Your task to perform on an android device: turn on airplane mode Image 0: 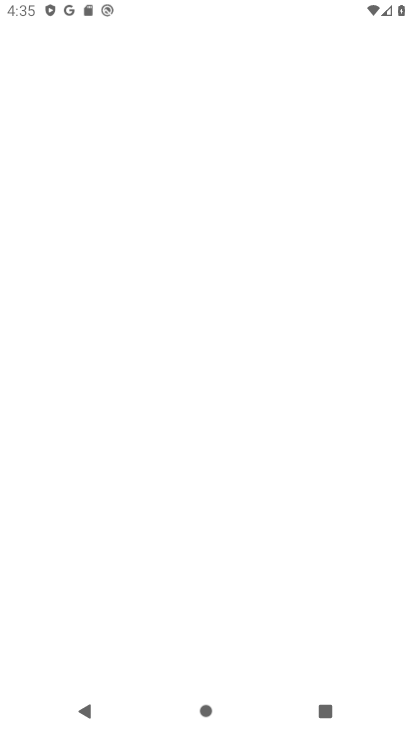
Step 0: press home button
Your task to perform on an android device: turn on airplane mode Image 1: 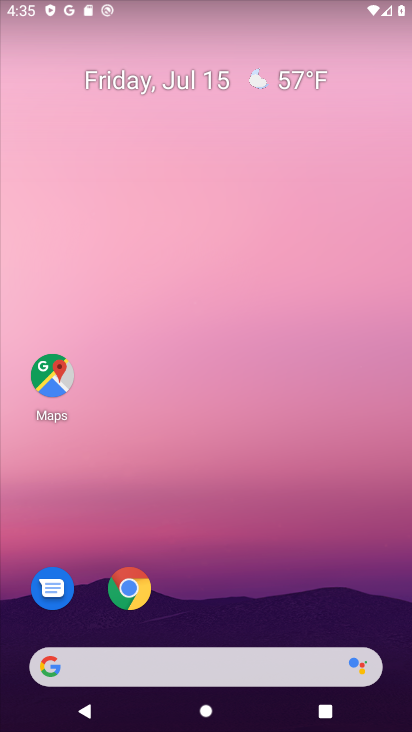
Step 1: drag from (292, 512) to (287, 157)
Your task to perform on an android device: turn on airplane mode Image 2: 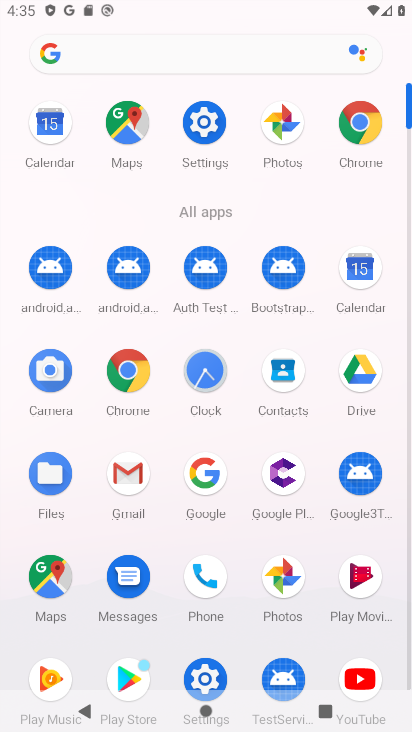
Step 2: drag from (200, 7) to (177, 457)
Your task to perform on an android device: turn on airplane mode Image 3: 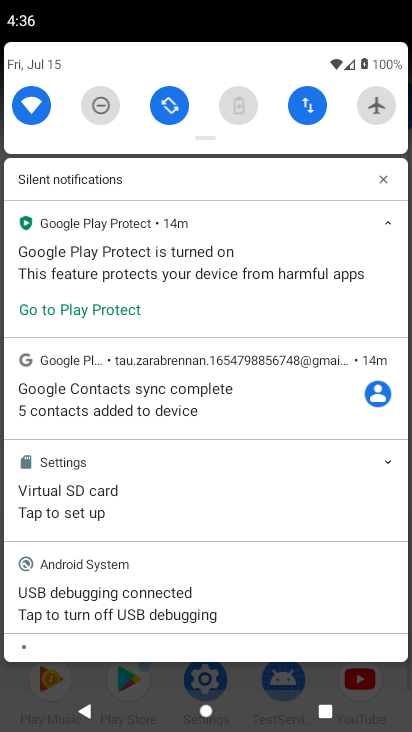
Step 3: click (376, 98)
Your task to perform on an android device: turn on airplane mode Image 4: 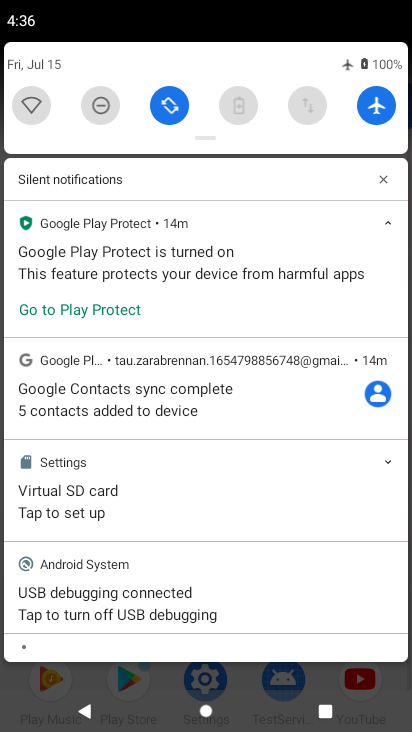
Step 4: task complete